Your task to perform on an android device: Open Chrome and go to settings Image 0: 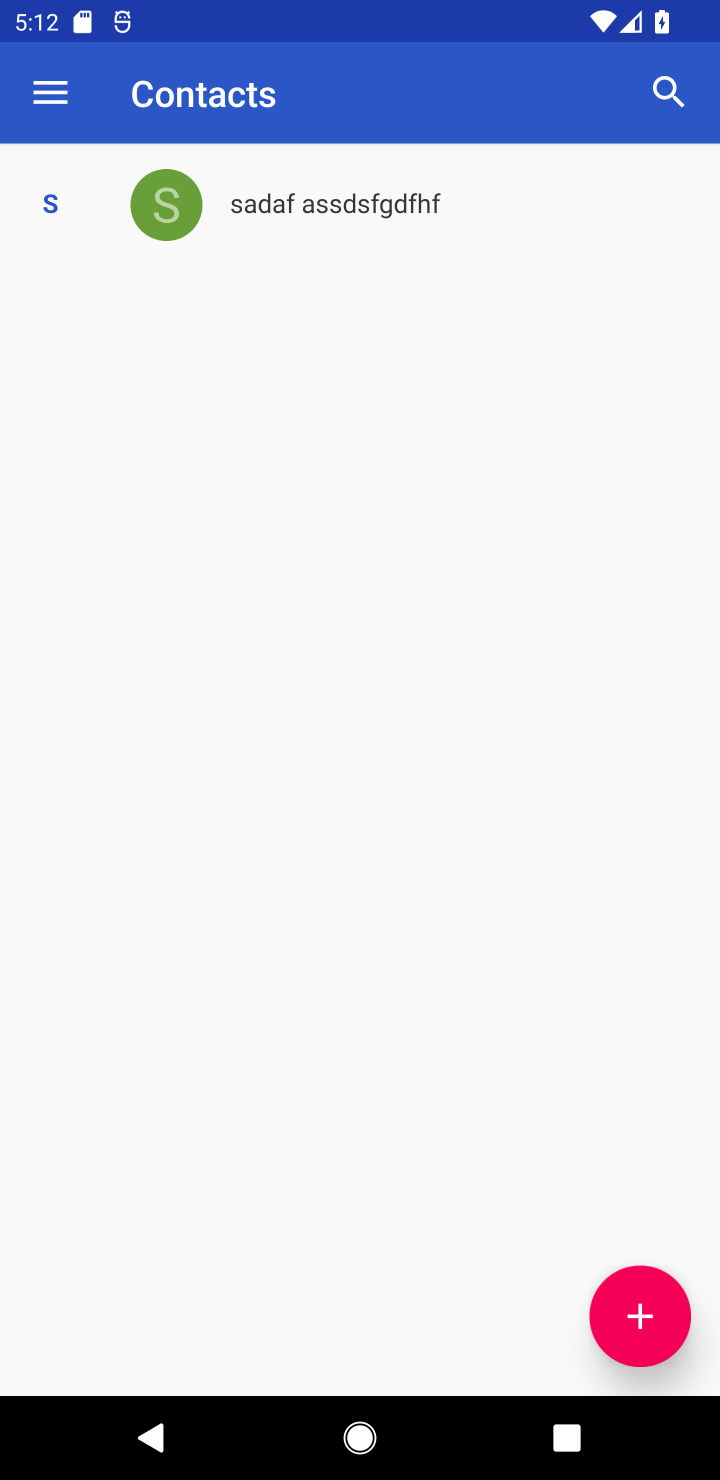
Step 0: task complete